Your task to perform on an android device: turn on javascript in the chrome app Image 0: 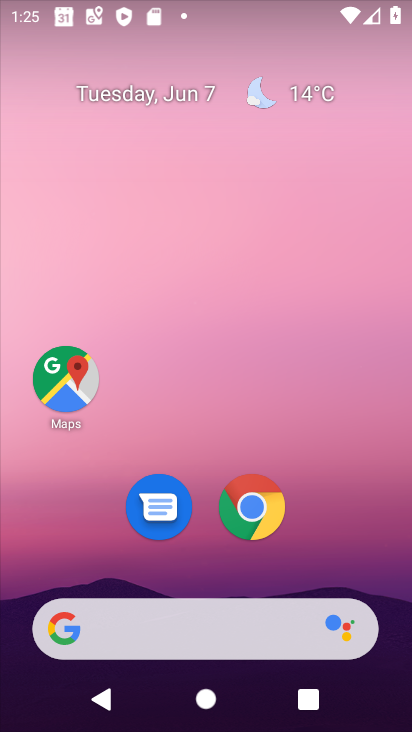
Step 0: click (250, 502)
Your task to perform on an android device: turn on javascript in the chrome app Image 1: 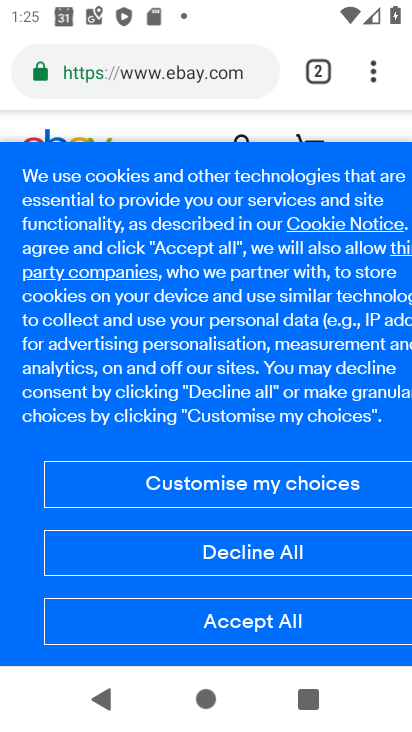
Step 1: click (373, 77)
Your task to perform on an android device: turn on javascript in the chrome app Image 2: 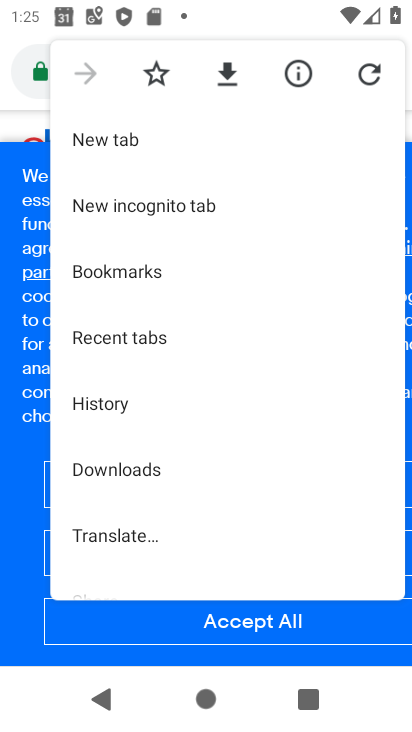
Step 2: drag from (165, 513) to (190, 187)
Your task to perform on an android device: turn on javascript in the chrome app Image 3: 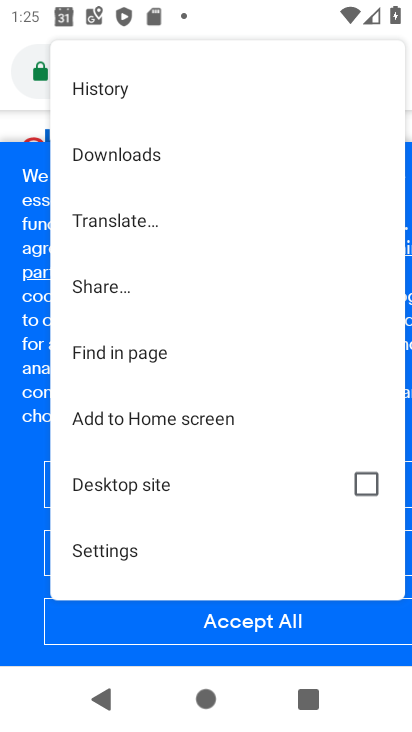
Step 3: click (131, 542)
Your task to perform on an android device: turn on javascript in the chrome app Image 4: 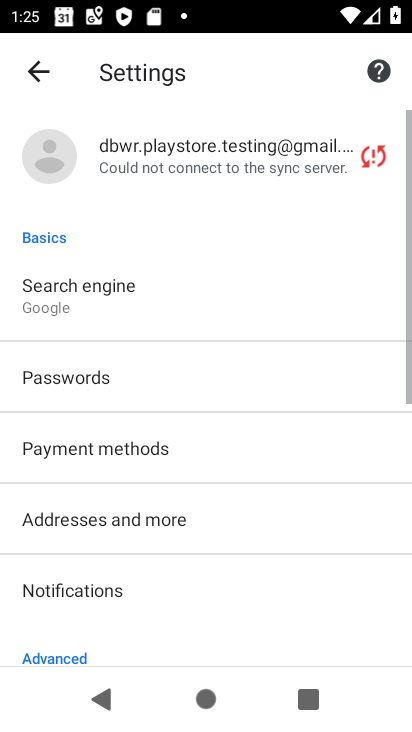
Step 4: drag from (208, 593) to (164, 122)
Your task to perform on an android device: turn on javascript in the chrome app Image 5: 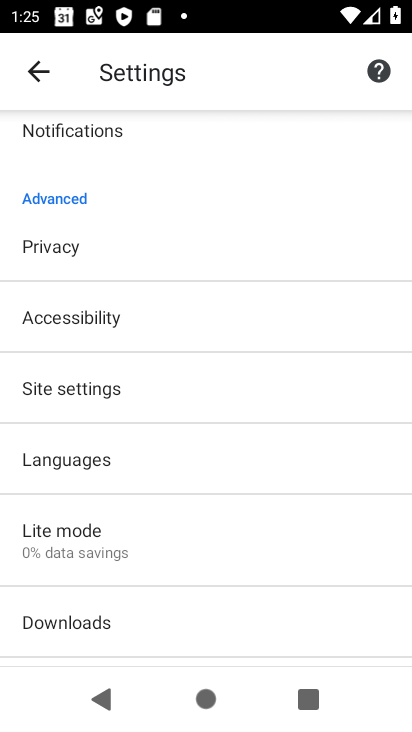
Step 5: click (73, 387)
Your task to perform on an android device: turn on javascript in the chrome app Image 6: 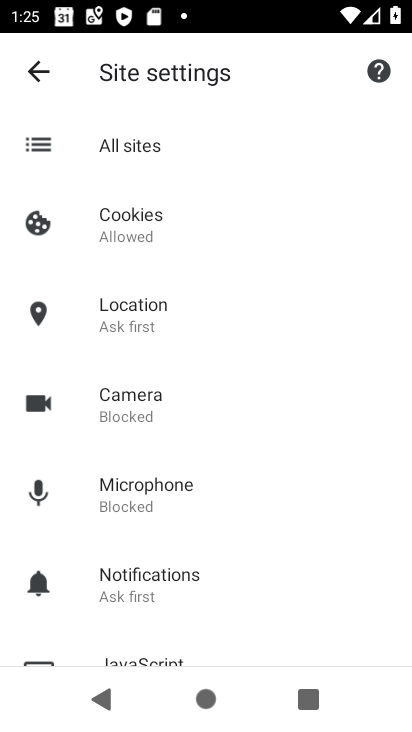
Step 6: drag from (219, 597) to (196, 188)
Your task to perform on an android device: turn on javascript in the chrome app Image 7: 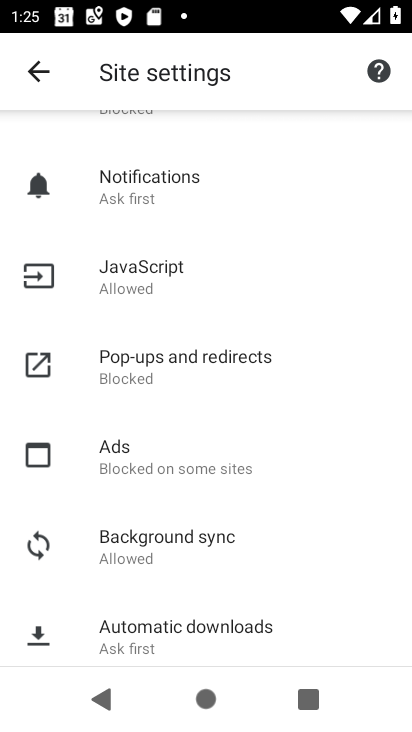
Step 7: click (137, 274)
Your task to perform on an android device: turn on javascript in the chrome app Image 8: 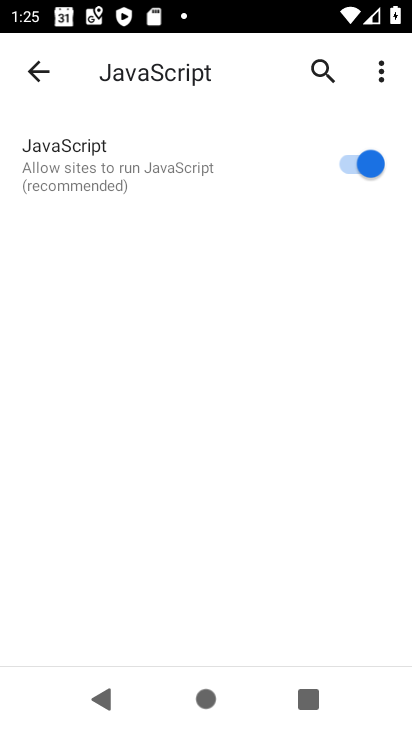
Step 8: task complete